Your task to perform on an android device: open app "Speedtest by Ookla" (install if not already installed) and enter user name: "hyena@outlook.com" and password: "terminators" Image 0: 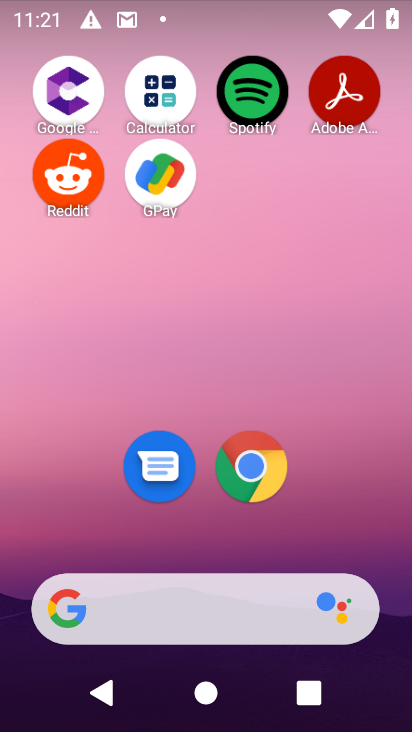
Step 0: click (267, 473)
Your task to perform on an android device: open app "Speedtest by Ookla" (install if not already installed) and enter user name: "hyena@outlook.com" and password: "terminators" Image 1: 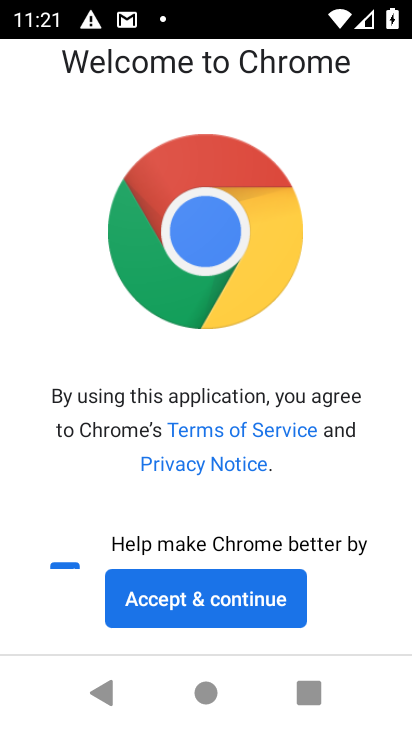
Step 1: press home button
Your task to perform on an android device: open app "Speedtest by Ookla" (install if not already installed) and enter user name: "hyena@outlook.com" and password: "terminators" Image 2: 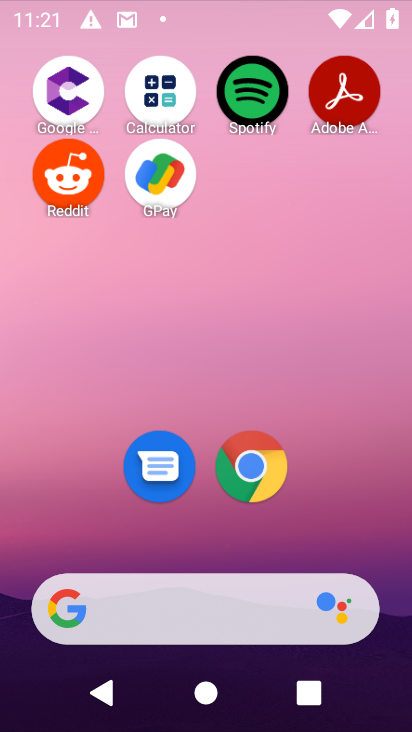
Step 2: drag from (231, 614) to (192, 137)
Your task to perform on an android device: open app "Speedtest by Ookla" (install if not already installed) and enter user name: "hyena@outlook.com" and password: "terminators" Image 3: 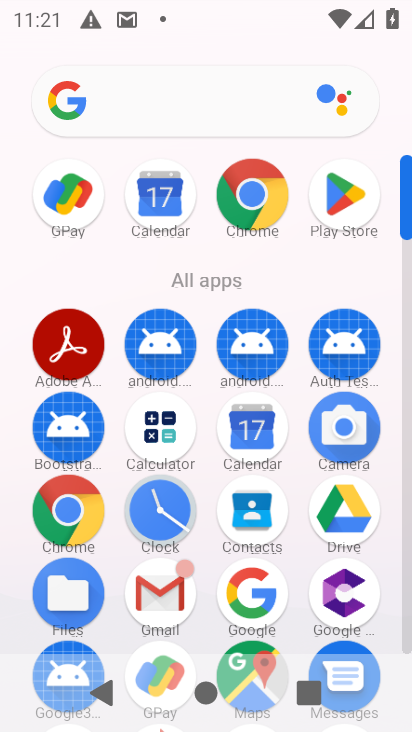
Step 3: click (348, 212)
Your task to perform on an android device: open app "Speedtest by Ookla" (install if not already installed) and enter user name: "hyena@outlook.com" and password: "terminators" Image 4: 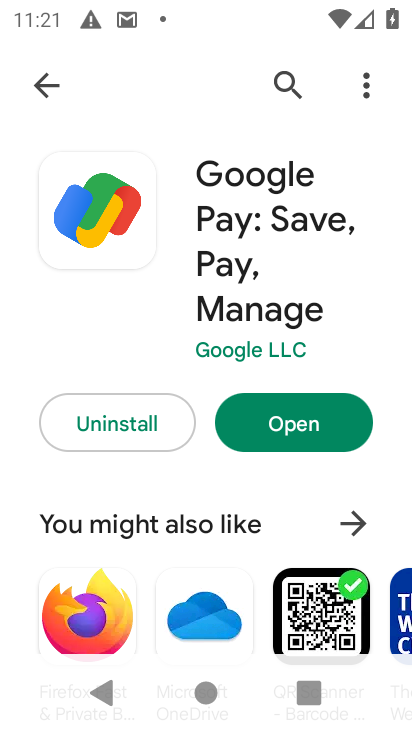
Step 4: click (40, 89)
Your task to perform on an android device: open app "Speedtest by Ookla" (install if not already installed) and enter user name: "hyena@outlook.com" and password: "terminators" Image 5: 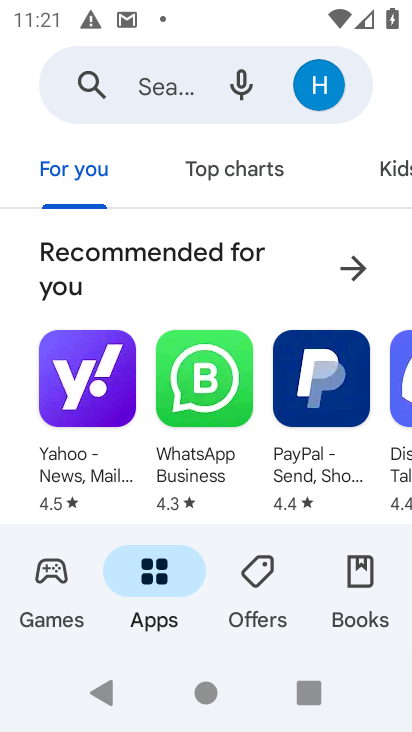
Step 5: click (112, 98)
Your task to perform on an android device: open app "Speedtest by Ookla" (install if not already installed) and enter user name: "hyena@outlook.com" and password: "terminators" Image 6: 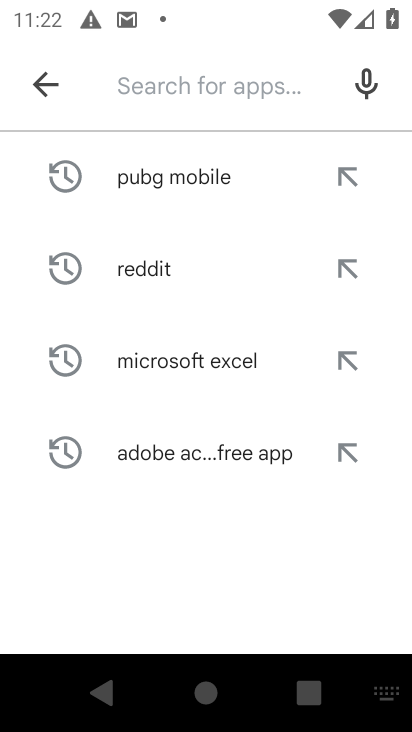
Step 6: type "Speedtest by Ookla"
Your task to perform on an android device: open app "Speedtest by Ookla" (install if not already installed) and enter user name: "hyena@outlook.com" and password: "terminators" Image 7: 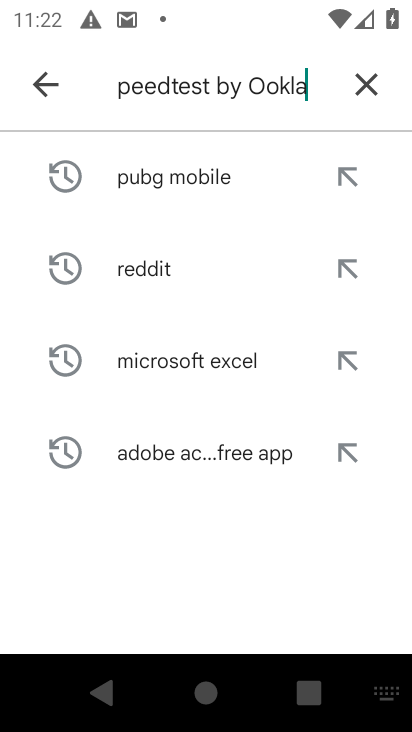
Step 7: type ""
Your task to perform on an android device: open app "Speedtest by Ookla" (install if not already installed) and enter user name: "hyena@outlook.com" and password: "terminators" Image 8: 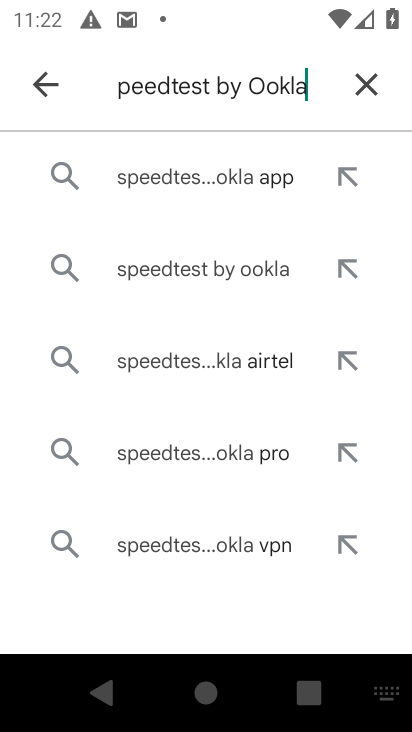
Step 8: click (248, 195)
Your task to perform on an android device: open app "Speedtest by Ookla" (install if not already installed) and enter user name: "hyena@outlook.com" and password: "terminators" Image 9: 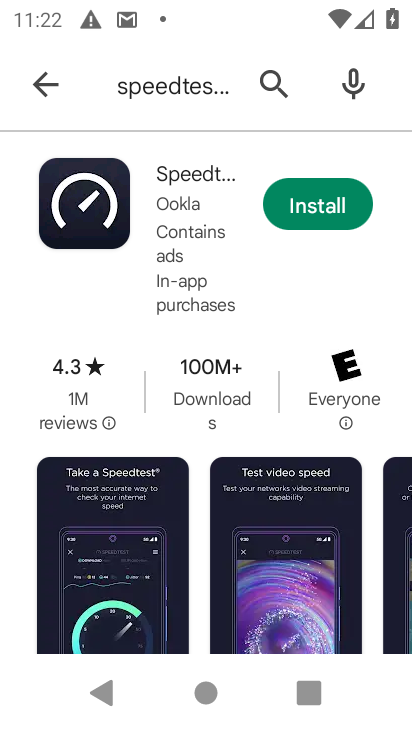
Step 9: click (320, 208)
Your task to perform on an android device: open app "Speedtest by Ookla" (install if not already installed) and enter user name: "hyena@outlook.com" and password: "terminators" Image 10: 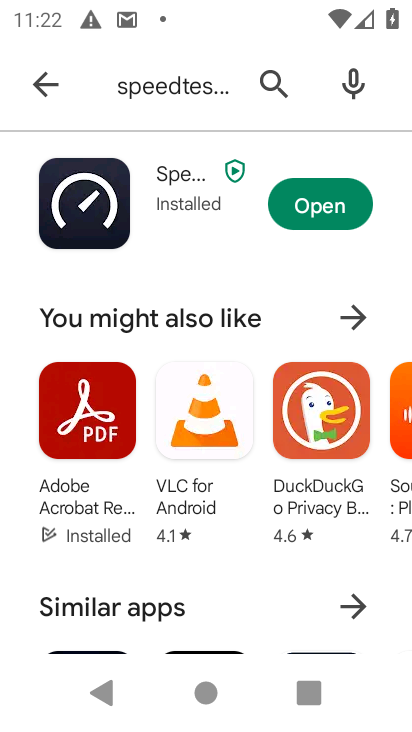
Step 10: click (321, 213)
Your task to perform on an android device: open app "Speedtest by Ookla" (install if not already installed) and enter user name: "hyena@outlook.com" and password: "terminators" Image 11: 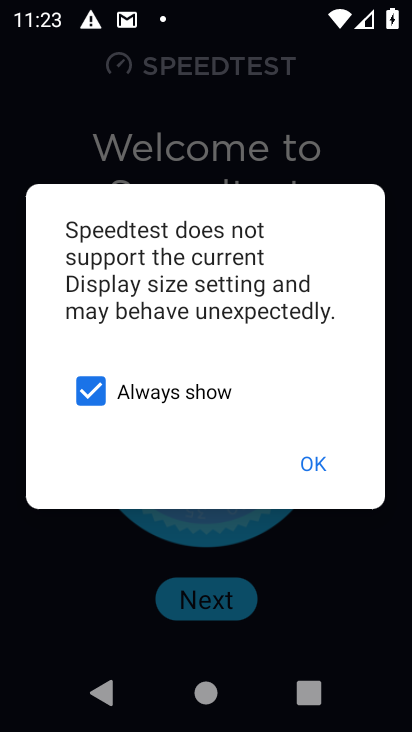
Step 11: task complete